Your task to perform on an android device: delete location history Image 0: 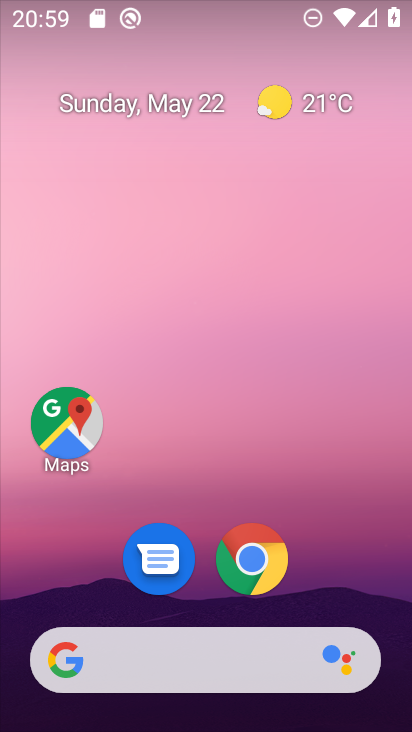
Step 0: press home button
Your task to perform on an android device: delete location history Image 1: 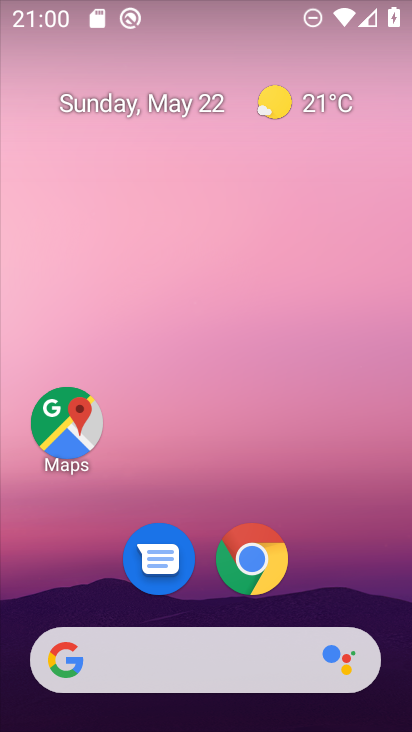
Step 1: drag from (244, 696) to (267, 269)
Your task to perform on an android device: delete location history Image 2: 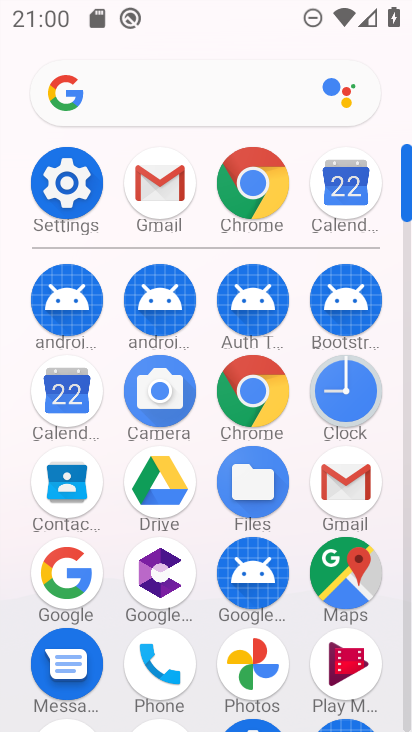
Step 2: click (88, 184)
Your task to perform on an android device: delete location history Image 3: 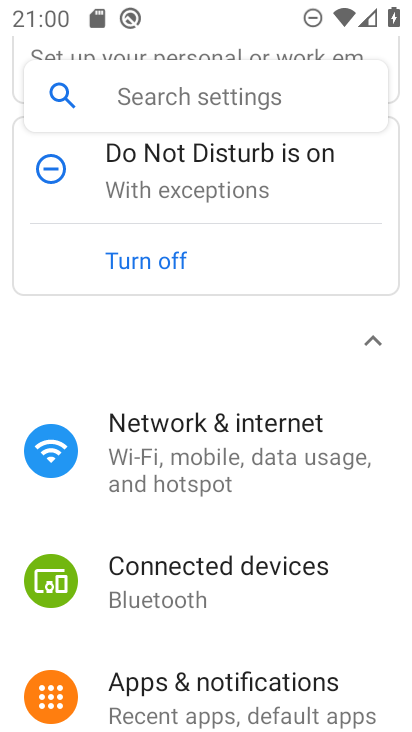
Step 3: click (209, 101)
Your task to perform on an android device: delete location history Image 4: 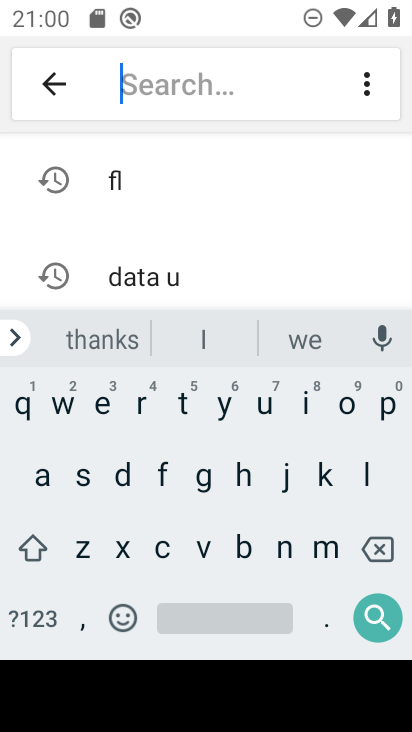
Step 4: click (370, 489)
Your task to perform on an android device: delete location history Image 5: 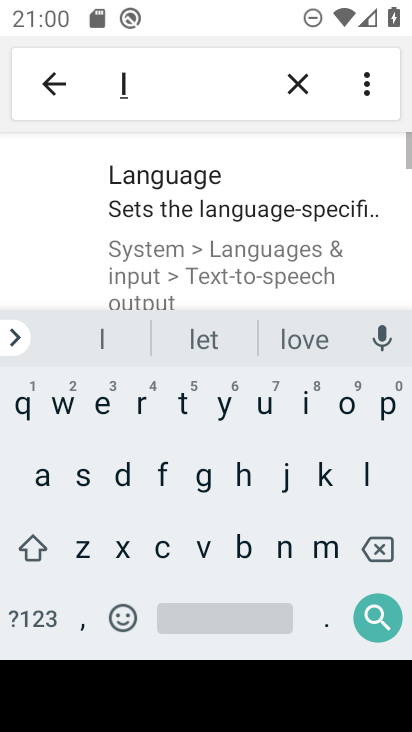
Step 5: click (338, 417)
Your task to perform on an android device: delete location history Image 6: 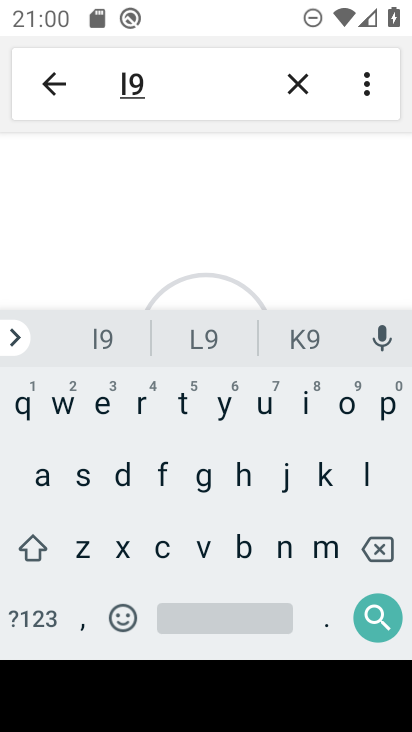
Step 6: click (371, 544)
Your task to perform on an android device: delete location history Image 7: 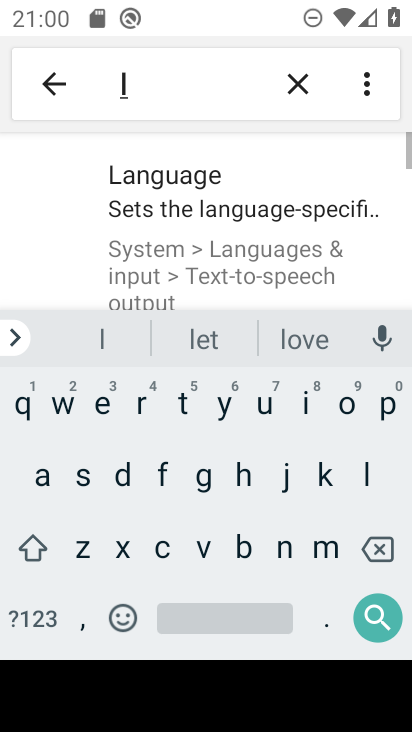
Step 7: click (346, 410)
Your task to perform on an android device: delete location history Image 8: 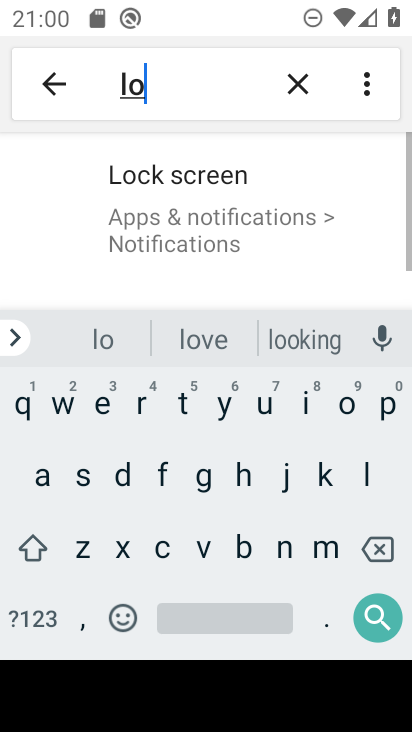
Step 8: drag from (217, 263) to (222, 170)
Your task to perform on an android device: delete location history Image 9: 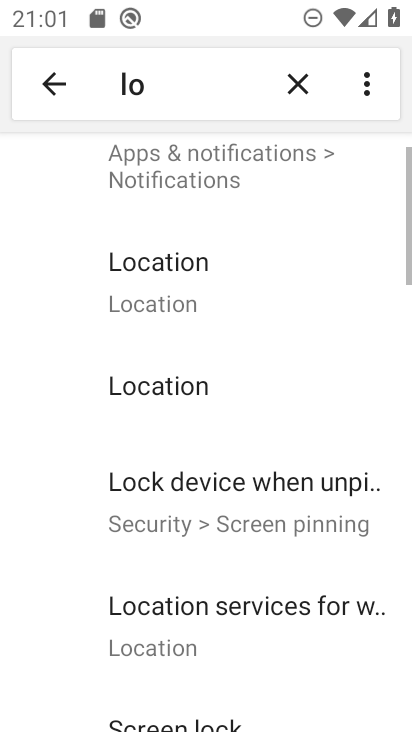
Step 9: click (157, 288)
Your task to perform on an android device: delete location history Image 10: 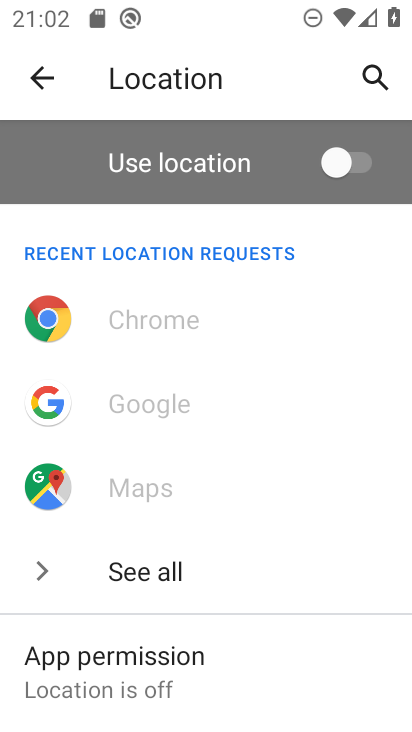
Step 10: drag from (202, 598) to (202, 232)
Your task to perform on an android device: delete location history Image 11: 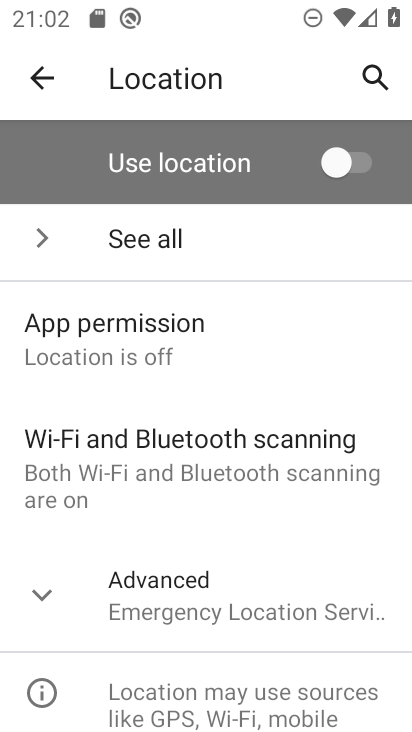
Step 11: click (100, 595)
Your task to perform on an android device: delete location history Image 12: 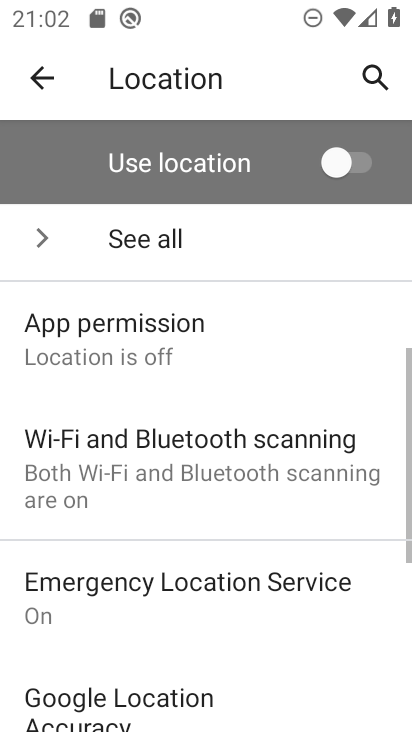
Step 12: drag from (173, 592) to (171, 322)
Your task to perform on an android device: delete location history Image 13: 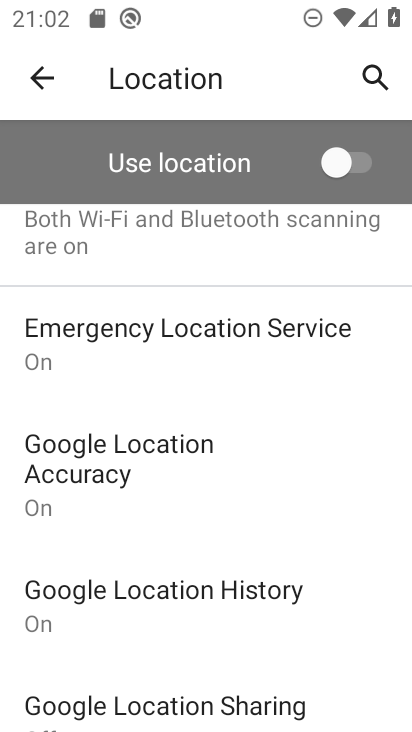
Step 13: click (162, 598)
Your task to perform on an android device: delete location history Image 14: 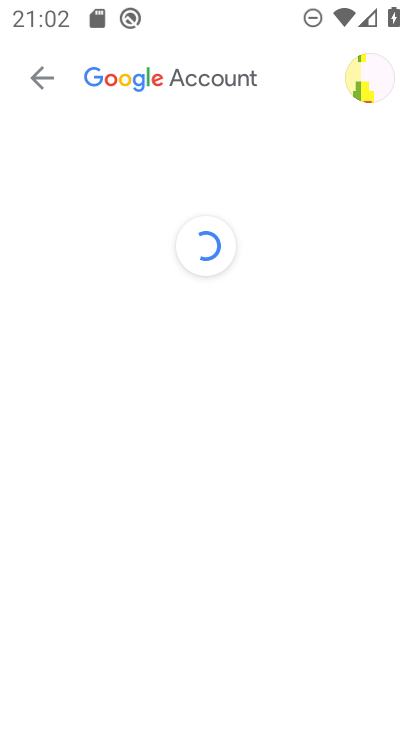
Step 14: task complete